Your task to perform on an android device: Go to Wikipedia Image 0: 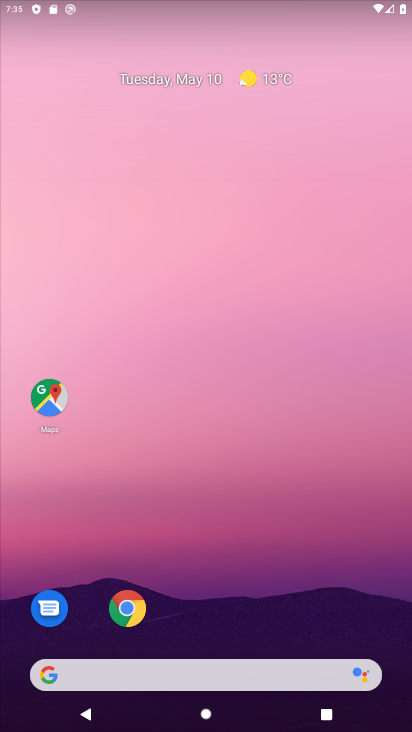
Step 0: drag from (233, 665) to (340, 55)
Your task to perform on an android device: Go to Wikipedia Image 1: 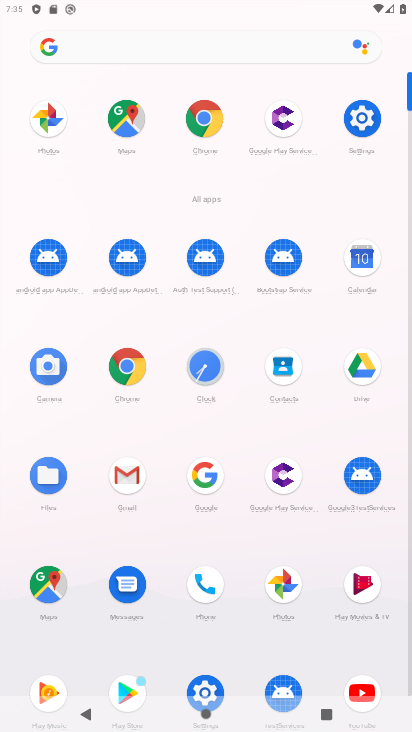
Step 1: click (207, 122)
Your task to perform on an android device: Go to Wikipedia Image 2: 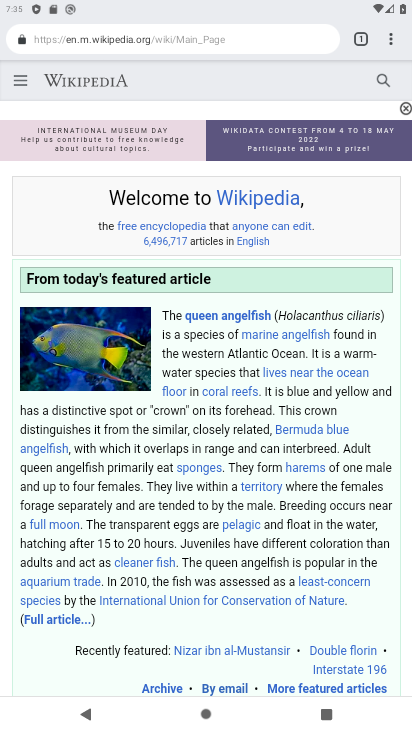
Step 2: task complete